Your task to perform on an android device: Open Google Chrome and open the bookmarks view Image 0: 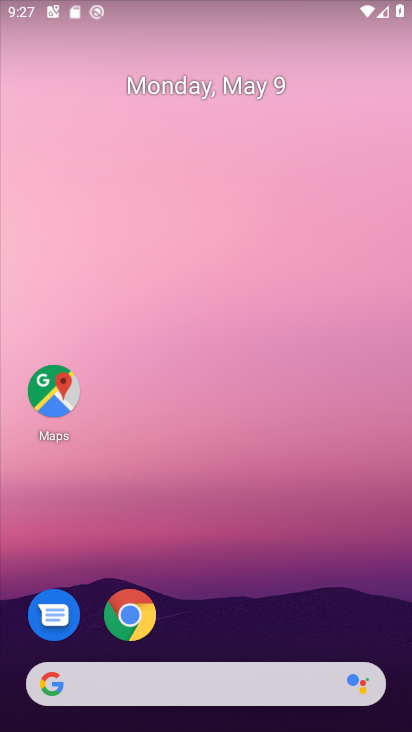
Step 0: drag from (249, 694) to (198, 61)
Your task to perform on an android device: Open Google Chrome and open the bookmarks view Image 1: 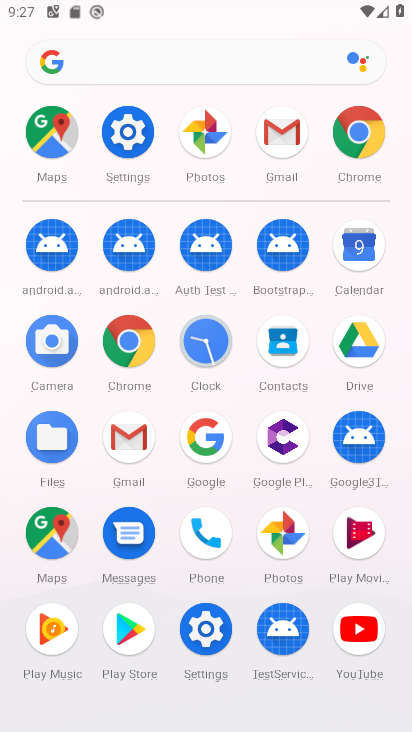
Step 1: click (347, 145)
Your task to perform on an android device: Open Google Chrome and open the bookmarks view Image 2: 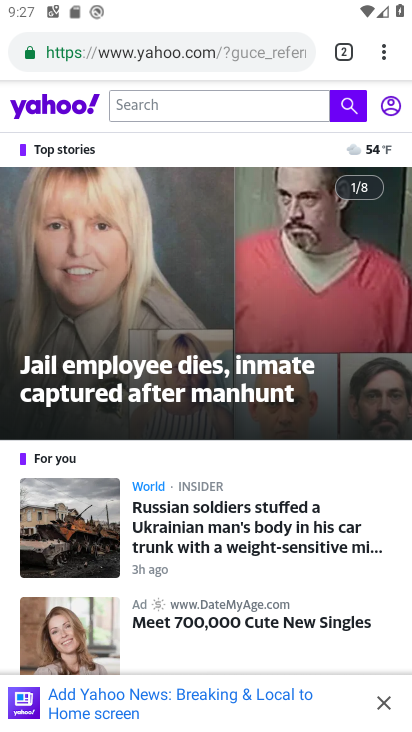
Step 2: click (382, 55)
Your task to perform on an android device: Open Google Chrome and open the bookmarks view Image 3: 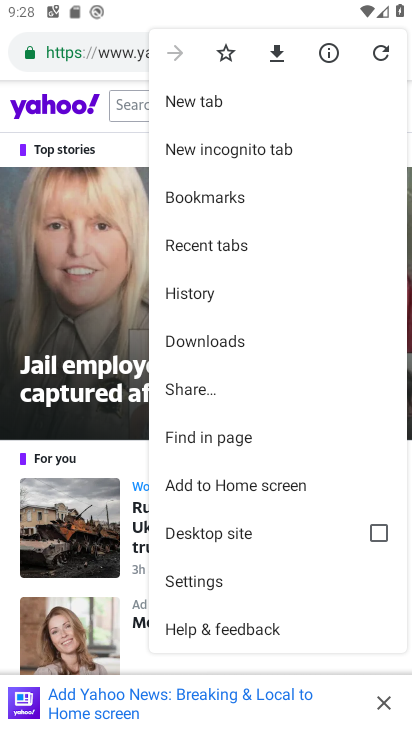
Step 3: click (221, 202)
Your task to perform on an android device: Open Google Chrome and open the bookmarks view Image 4: 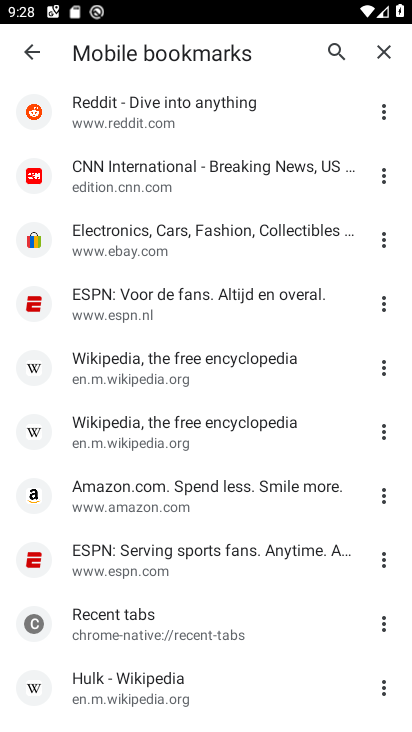
Step 4: task complete